Your task to perform on an android device: View the shopping cart on walmart.com. Add razer kraken to the cart on walmart.com, then select checkout. Image 0: 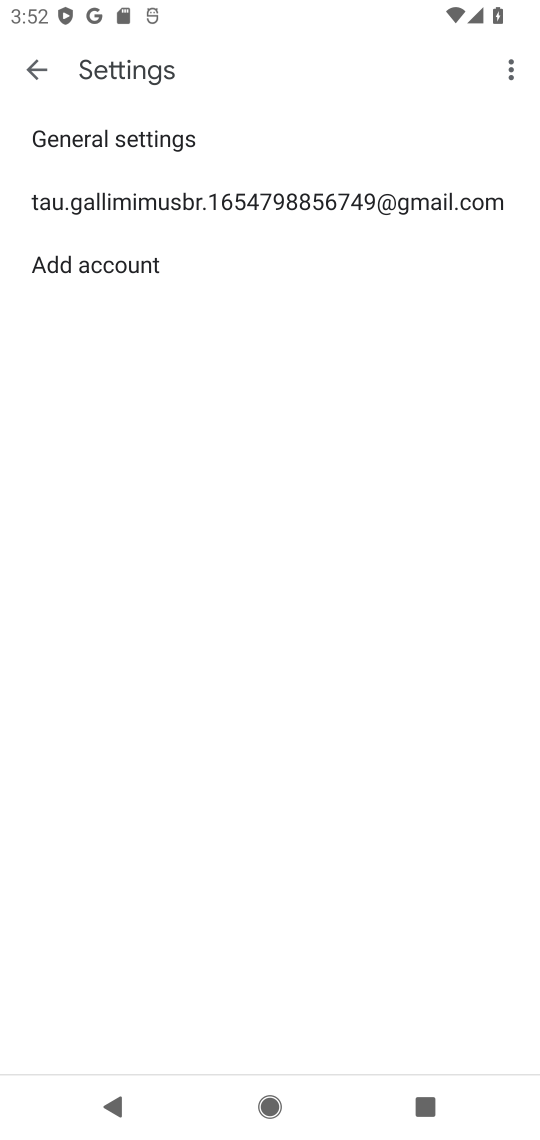
Step 0: press home button
Your task to perform on an android device: View the shopping cart on walmart.com. Add razer kraken to the cart on walmart.com, then select checkout. Image 1: 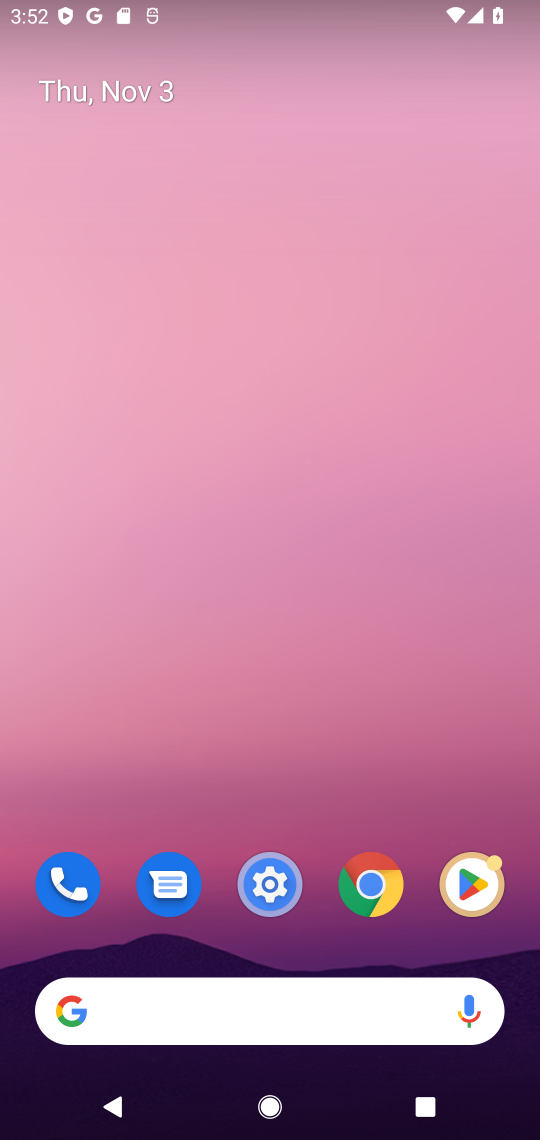
Step 1: click (101, 1012)
Your task to perform on an android device: View the shopping cart on walmart.com. Add razer kraken to the cart on walmart.com, then select checkout. Image 2: 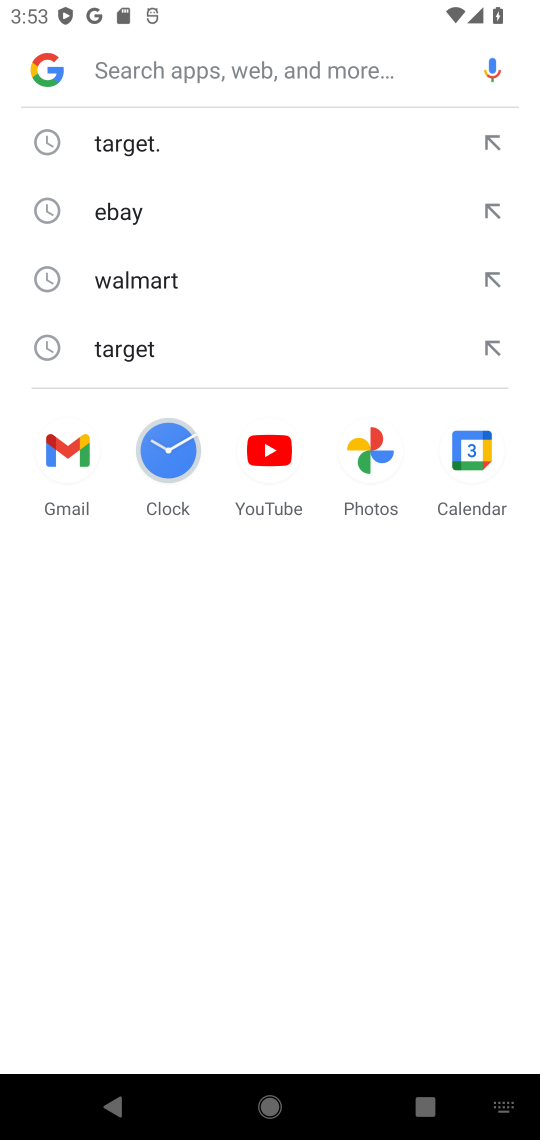
Step 2: type "walmart.com"
Your task to perform on an android device: View the shopping cart on walmart.com. Add razer kraken to the cart on walmart.com, then select checkout. Image 3: 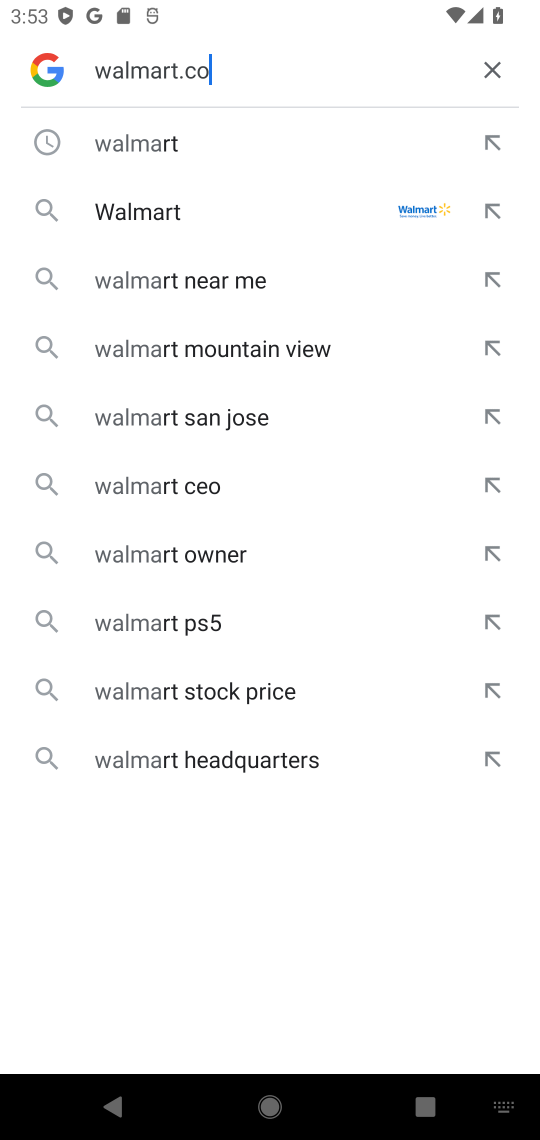
Step 3: press enter
Your task to perform on an android device: View the shopping cart on walmart.com. Add razer kraken to the cart on walmart.com, then select checkout. Image 4: 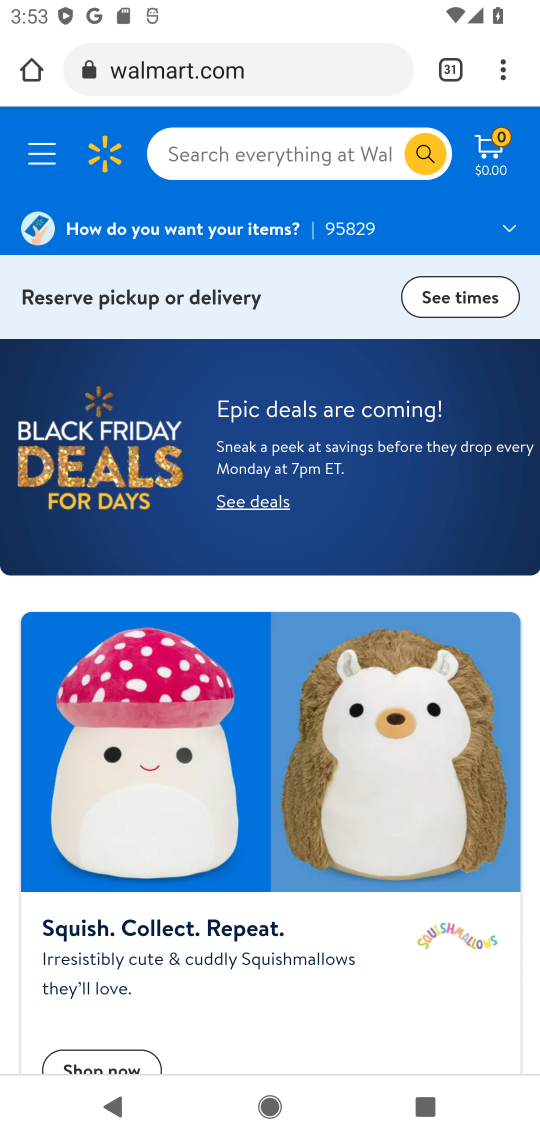
Step 4: click (486, 142)
Your task to perform on an android device: View the shopping cart on walmart.com. Add razer kraken to the cart on walmart.com, then select checkout. Image 5: 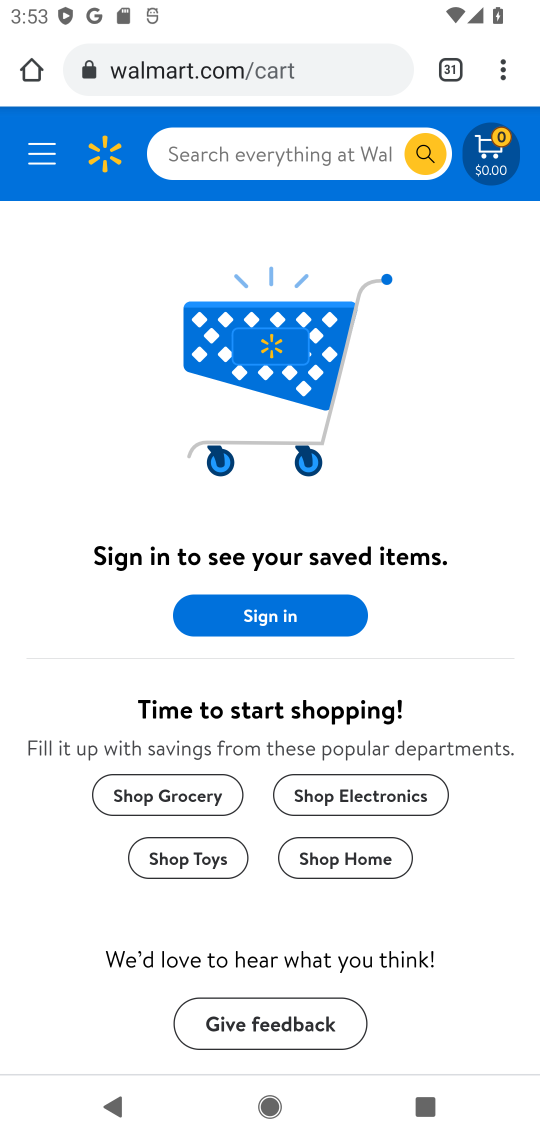
Step 5: click (192, 149)
Your task to perform on an android device: View the shopping cart on walmart.com. Add razer kraken to the cart on walmart.com, then select checkout. Image 6: 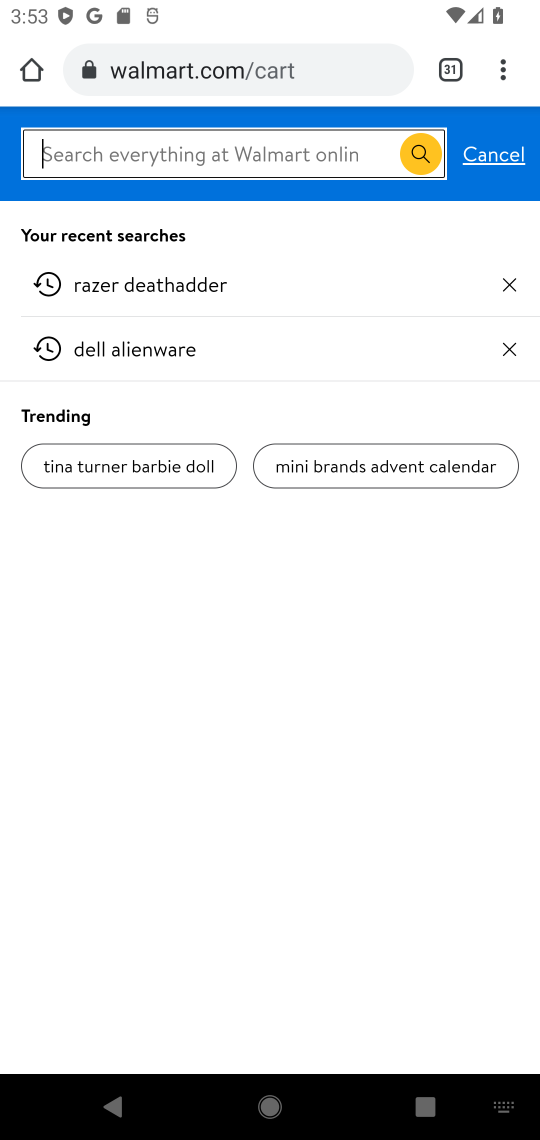
Step 6: type "razer kraken"
Your task to perform on an android device: View the shopping cart on walmart.com. Add razer kraken to the cart on walmart.com, then select checkout. Image 7: 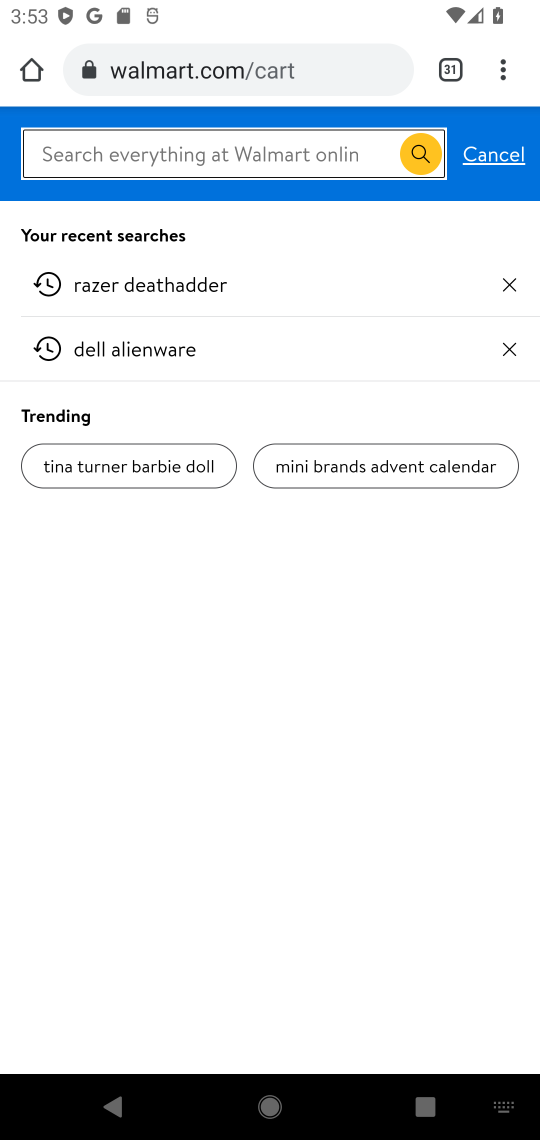
Step 7: press enter
Your task to perform on an android device: View the shopping cart on walmart.com. Add razer kraken to the cart on walmart.com, then select checkout. Image 8: 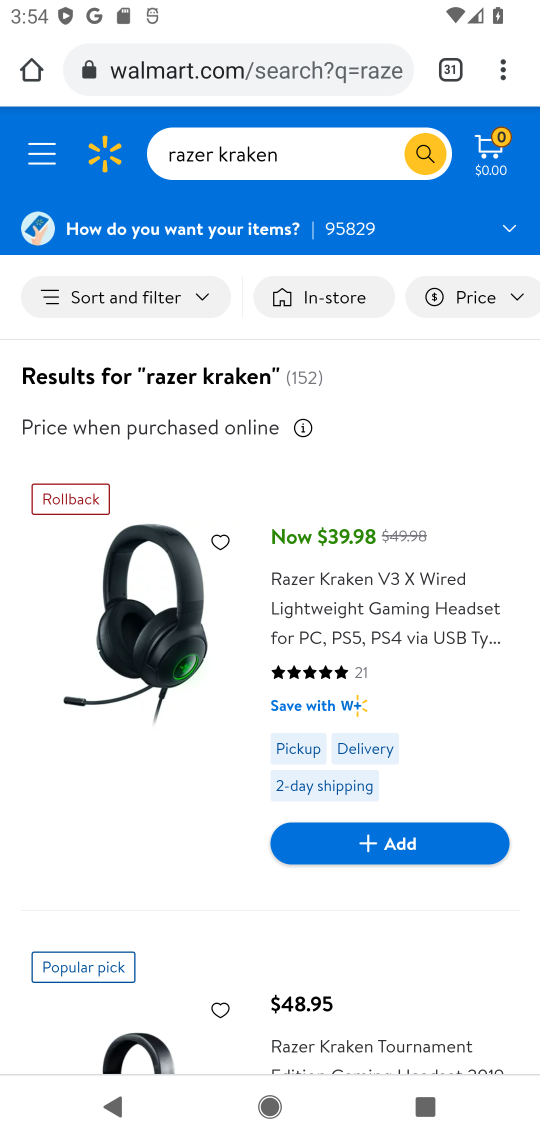
Step 8: click (373, 839)
Your task to perform on an android device: View the shopping cart on walmart.com. Add razer kraken to the cart on walmart.com, then select checkout. Image 9: 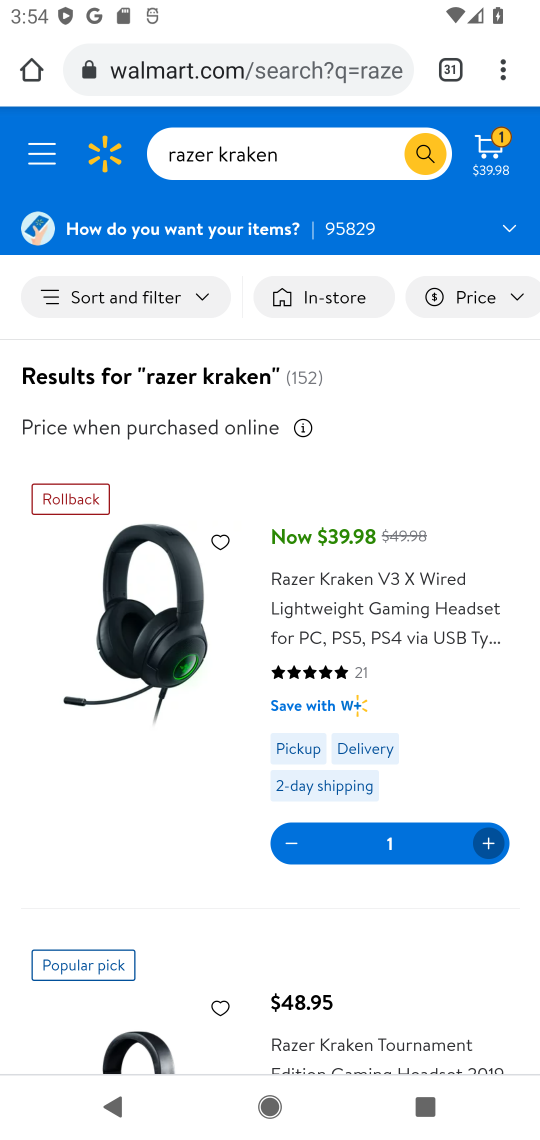
Step 9: click (488, 142)
Your task to perform on an android device: View the shopping cart on walmart.com. Add razer kraken to the cart on walmart.com, then select checkout. Image 10: 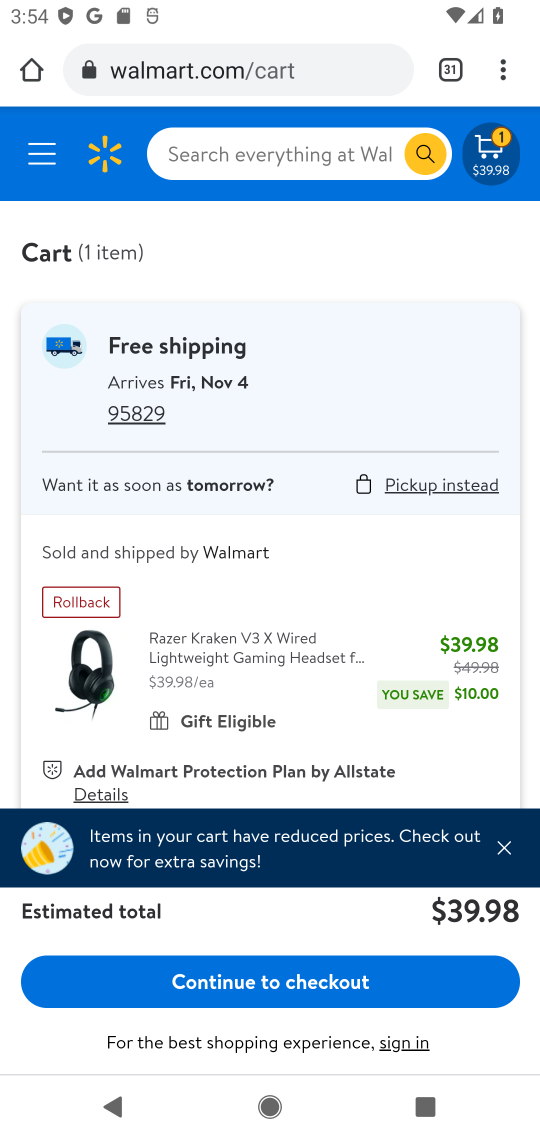
Step 10: click (510, 852)
Your task to perform on an android device: View the shopping cart on walmart.com. Add razer kraken to the cart on walmart.com, then select checkout. Image 11: 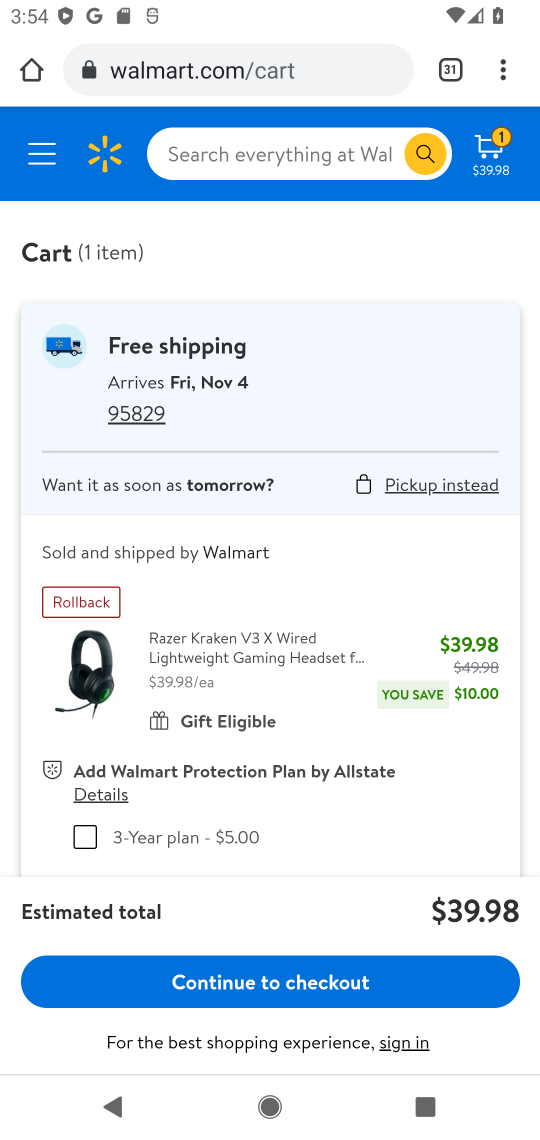
Step 11: click (293, 985)
Your task to perform on an android device: View the shopping cart on walmart.com. Add razer kraken to the cart on walmart.com, then select checkout. Image 12: 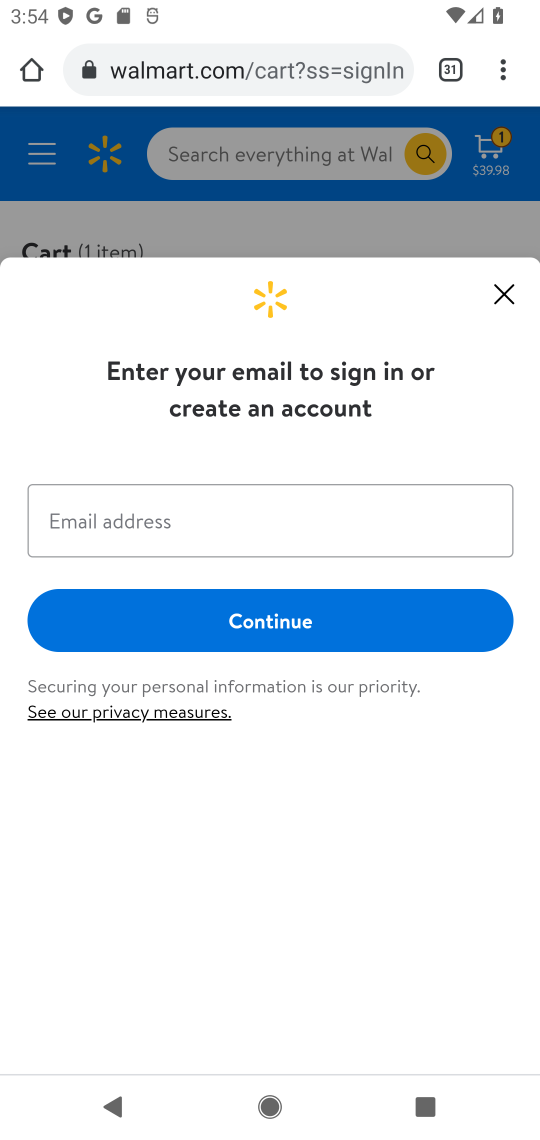
Step 12: task complete